Your task to perform on an android device: clear all cookies in the chrome app Image 0: 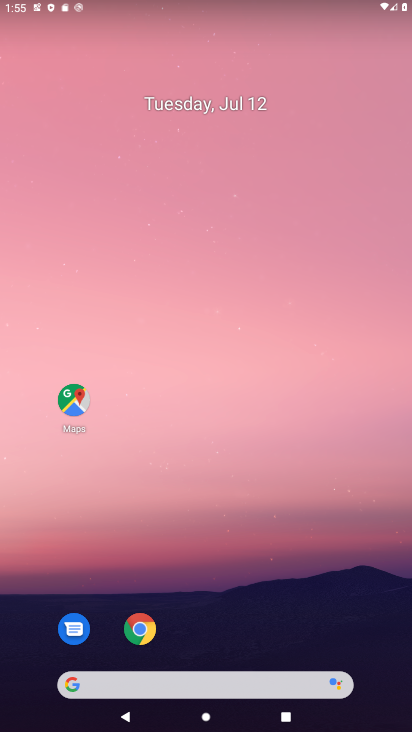
Step 0: drag from (289, 606) to (249, 98)
Your task to perform on an android device: clear all cookies in the chrome app Image 1: 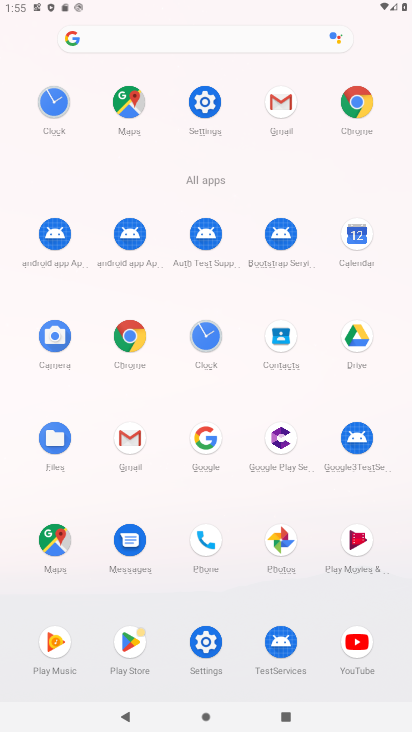
Step 1: click (362, 90)
Your task to perform on an android device: clear all cookies in the chrome app Image 2: 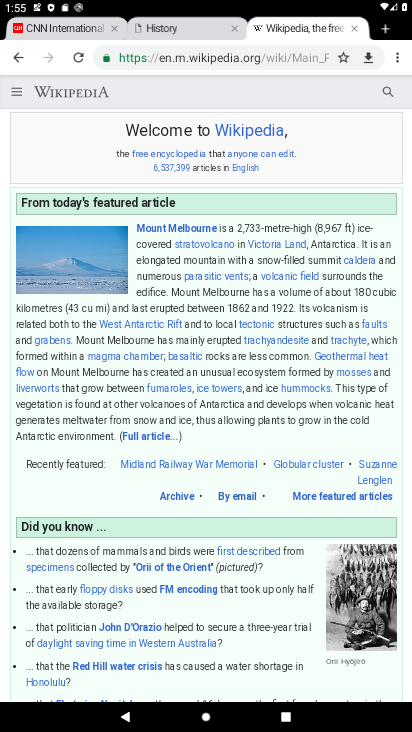
Step 2: click (398, 46)
Your task to perform on an android device: clear all cookies in the chrome app Image 3: 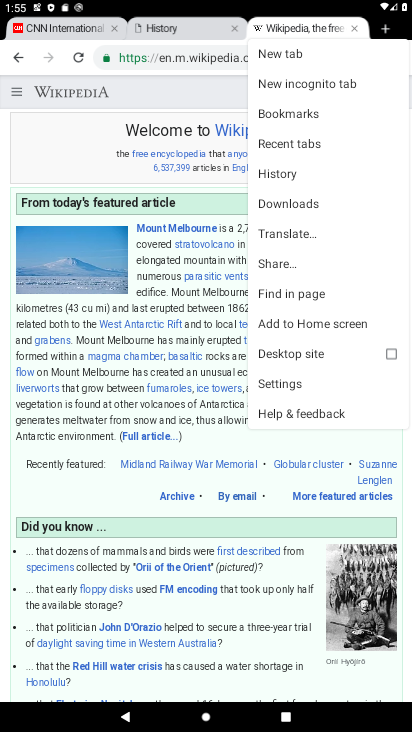
Step 3: click (301, 167)
Your task to perform on an android device: clear all cookies in the chrome app Image 4: 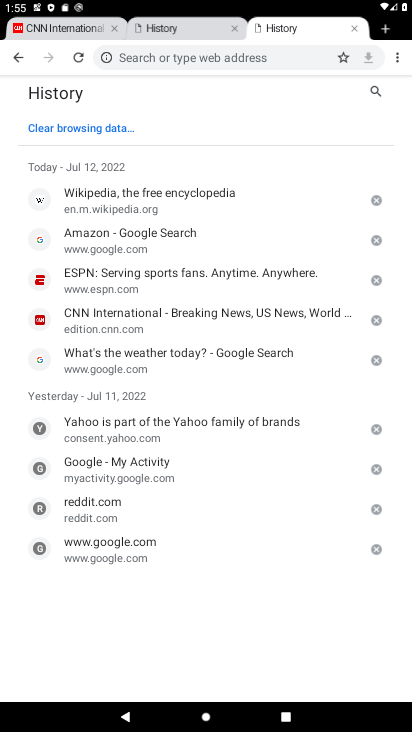
Step 4: click (104, 125)
Your task to perform on an android device: clear all cookies in the chrome app Image 5: 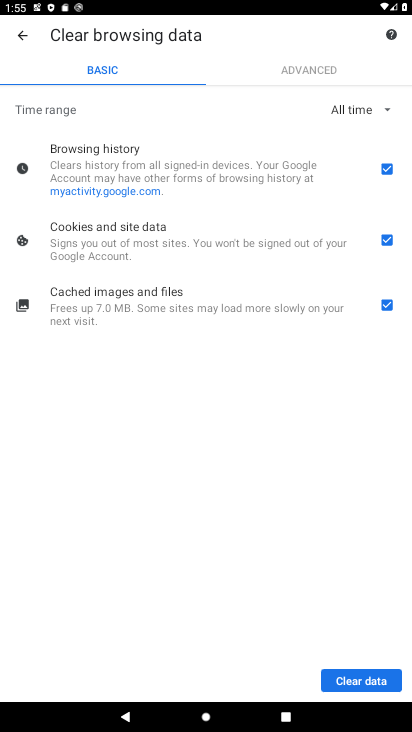
Step 5: click (386, 306)
Your task to perform on an android device: clear all cookies in the chrome app Image 6: 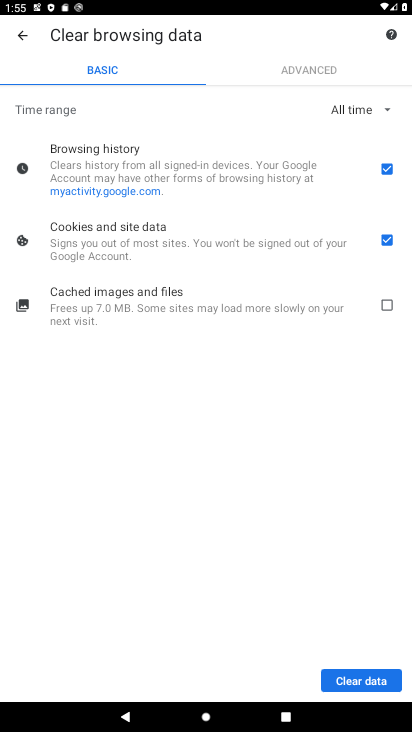
Step 6: click (383, 169)
Your task to perform on an android device: clear all cookies in the chrome app Image 7: 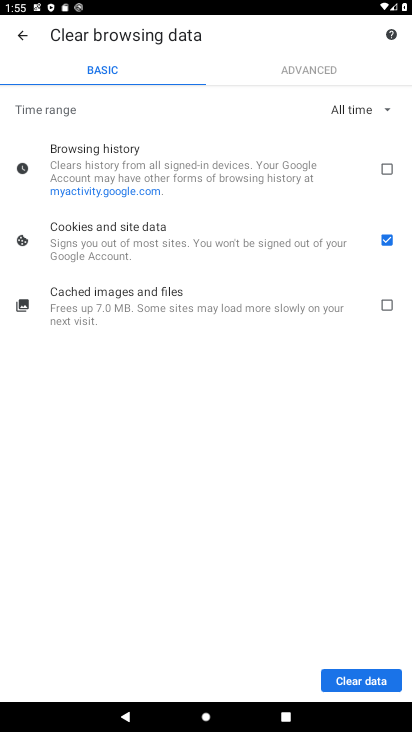
Step 7: click (344, 678)
Your task to perform on an android device: clear all cookies in the chrome app Image 8: 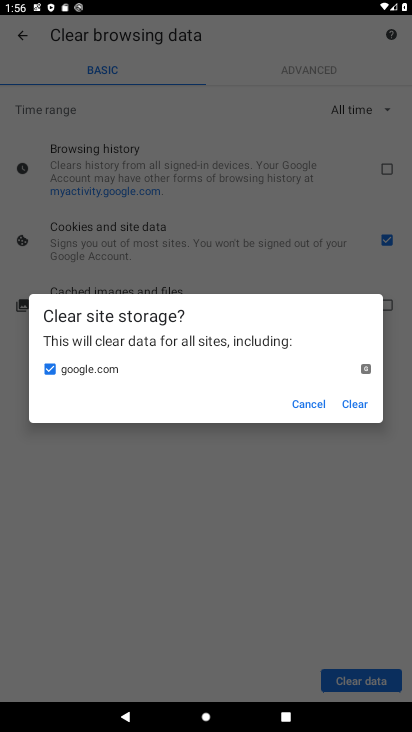
Step 8: click (362, 404)
Your task to perform on an android device: clear all cookies in the chrome app Image 9: 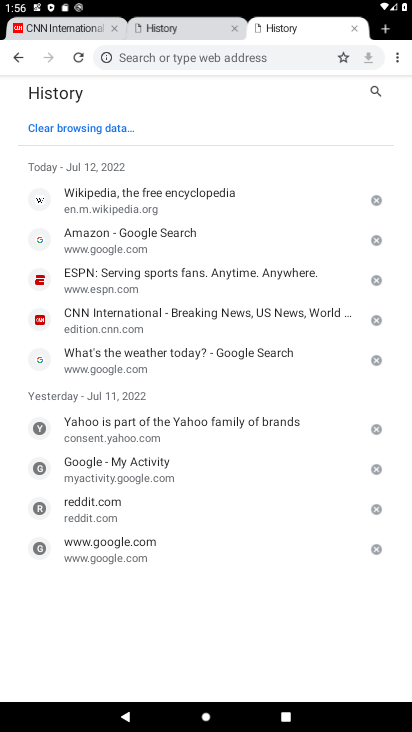
Step 9: task complete